Your task to perform on an android device: turn on translation in the chrome app Image 0: 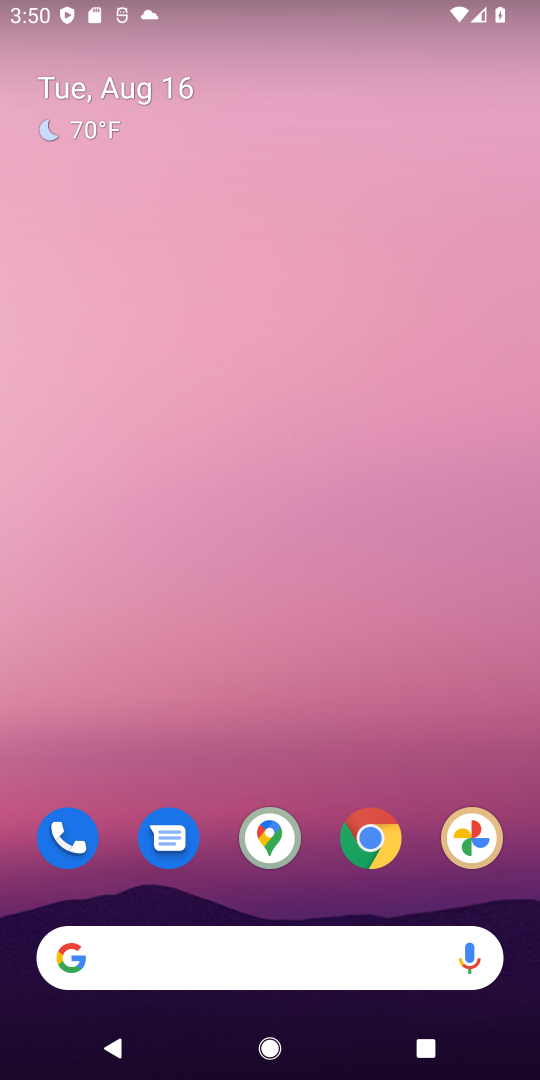
Step 0: click (378, 821)
Your task to perform on an android device: turn on translation in the chrome app Image 1: 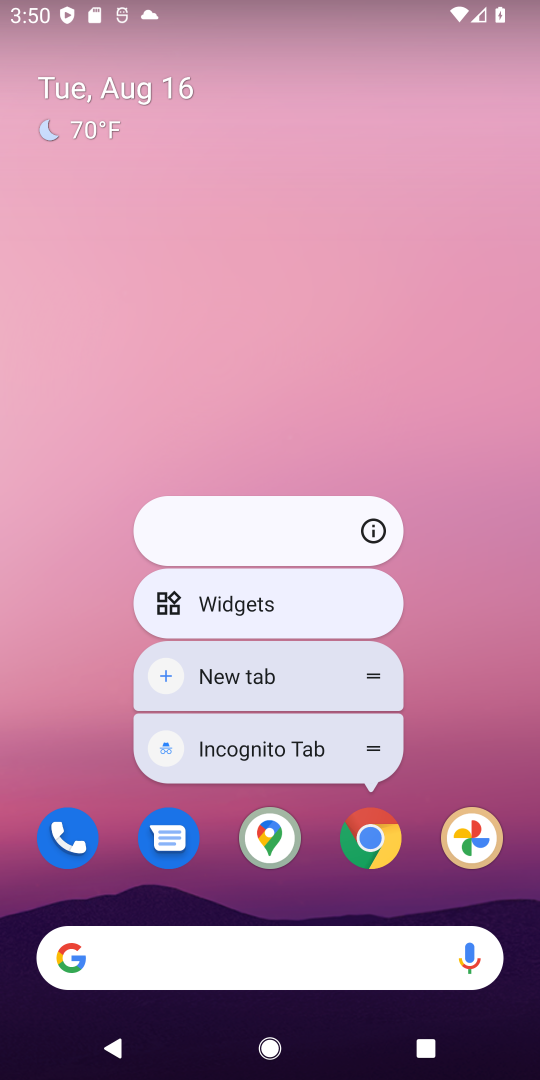
Step 1: click (378, 821)
Your task to perform on an android device: turn on translation in the chrome app Image 2: 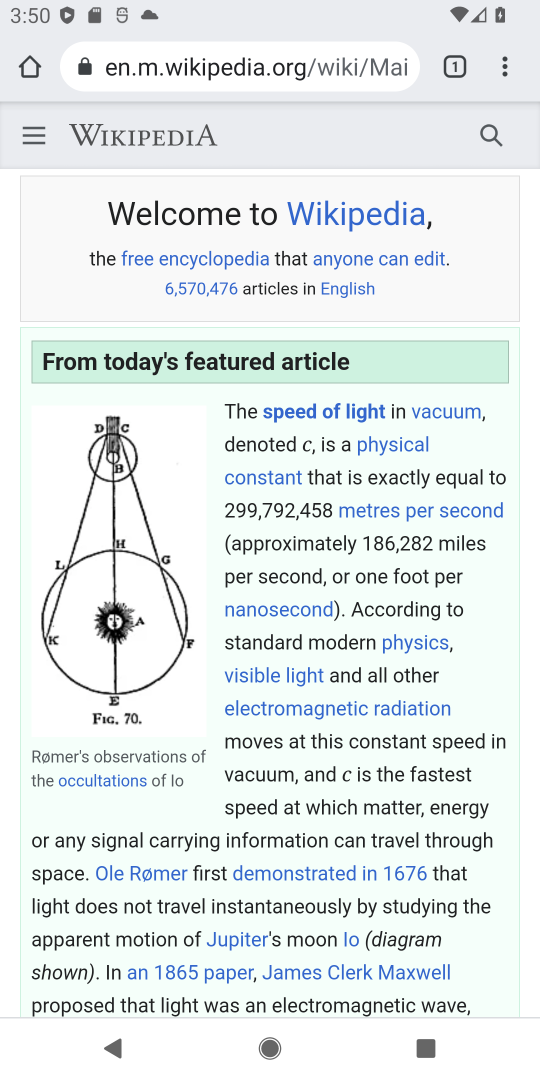
Step 2: drag from (502, 66) to (374, 830)
Your task to perform on an android device: turn on translation in the chrome app Image 3: 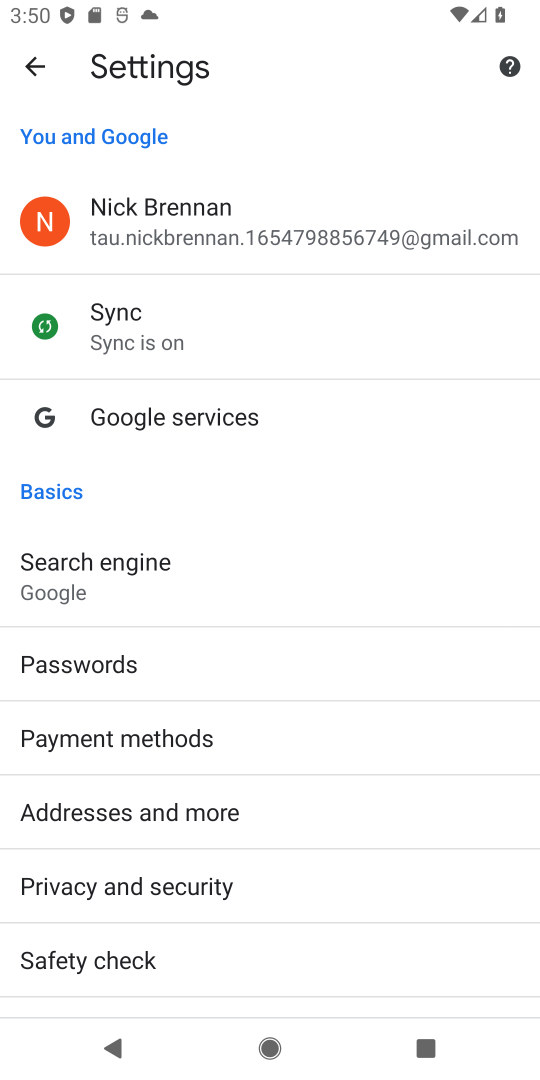
Step 3: drag from (225, 919) to (222, 275)
Your task to perform on an android device: turn on translation in the chrome app Image 4: 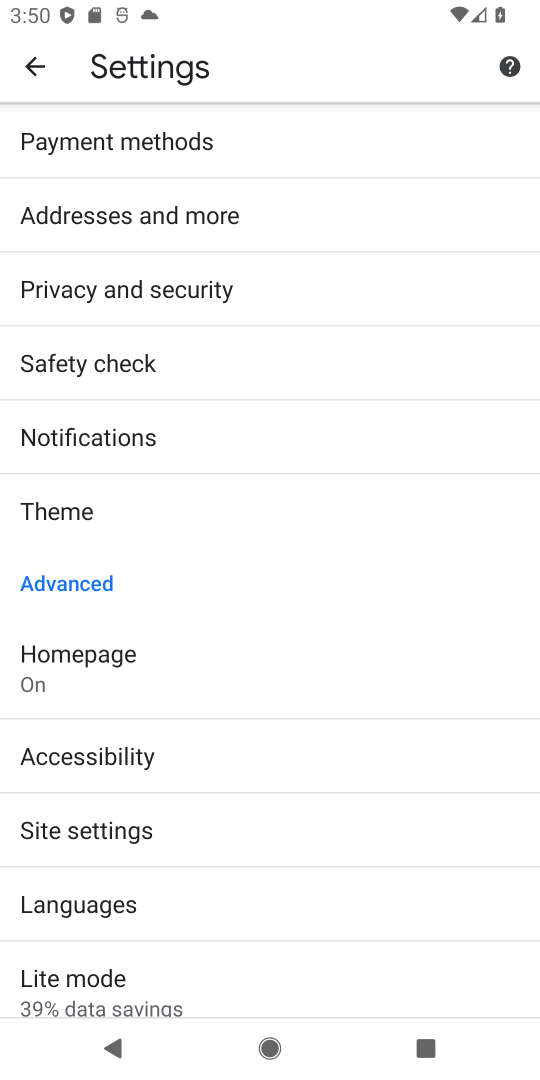
Step 4: click (214, 914)
Your task to perform on an android device: turn on translation in the chrome app Image 5: 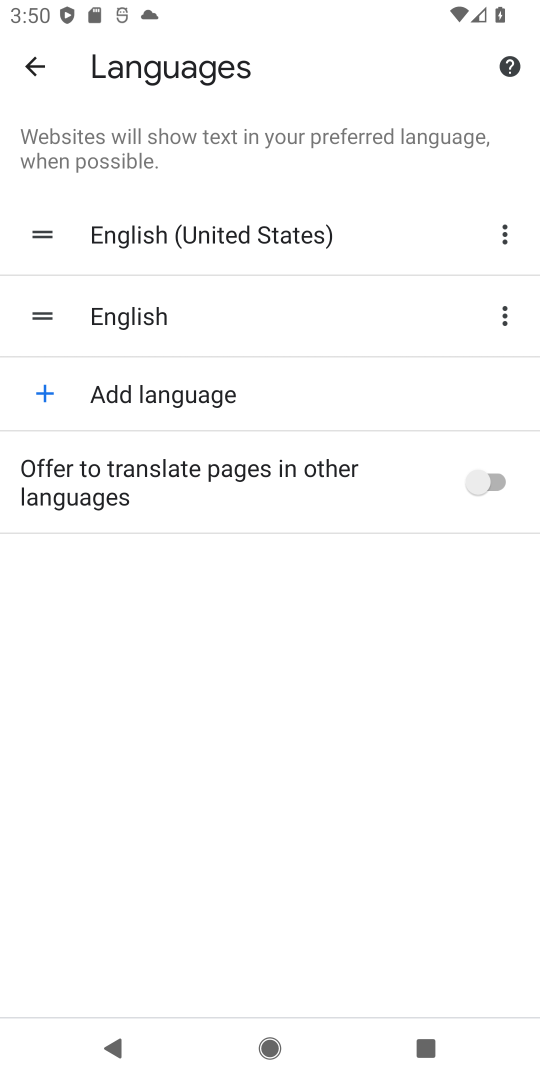
Step 5: click (497, 482)
Your task to perform on an android device: turn on translation in the chrome app Image 6: 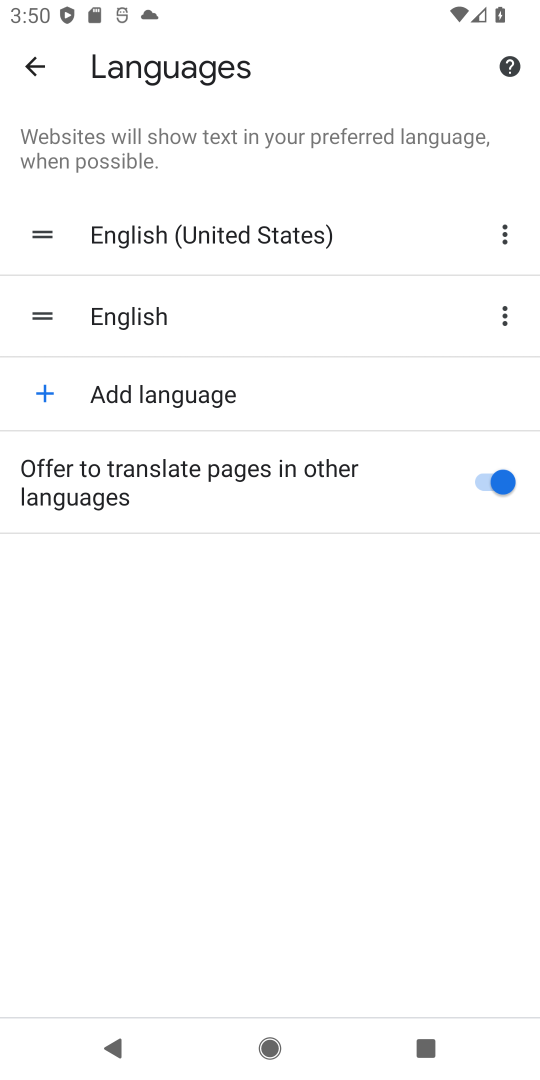
Step 6: task complete